Your task to perform on an android device: turn on wifi Image 0: 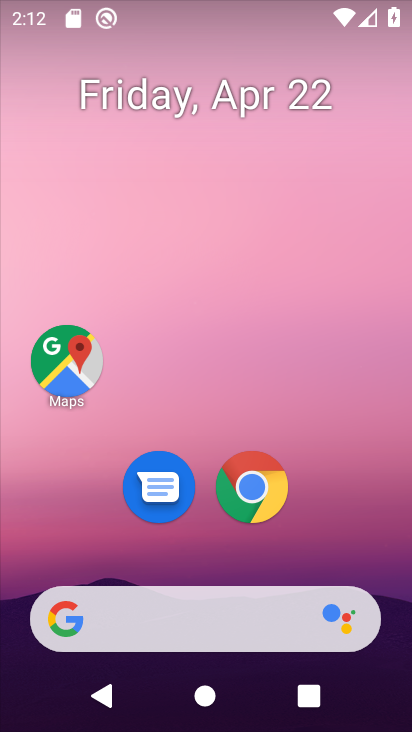
Step 0: drag from (268, 556) to (288, 274)
Your task to perform on an android device: turn on wifi Image 1: 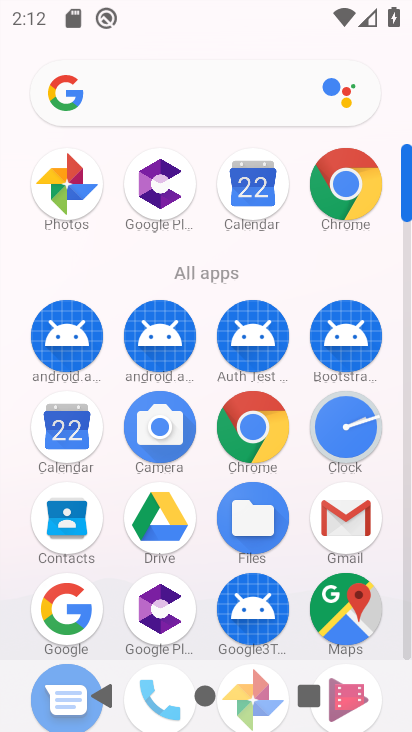
Step 1: drag from (224, 280) to (214, 2)
Your task to perform on an android device: turn on wifi Image 2: 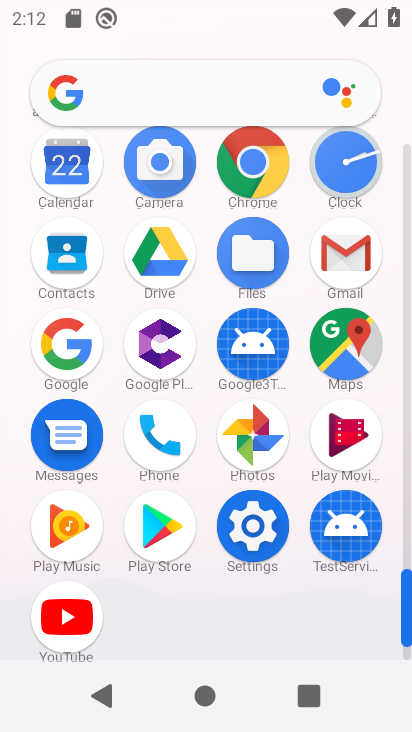
Step 2: click (263, 541)
Your task to perform on an android device: turn on wifi Image 3: 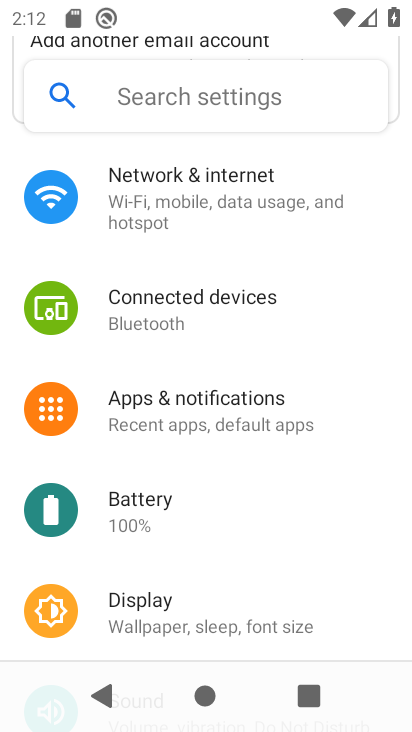
Step 3: click (266, 199)
Your task to perform on an android device: turn on wifi Image 4: 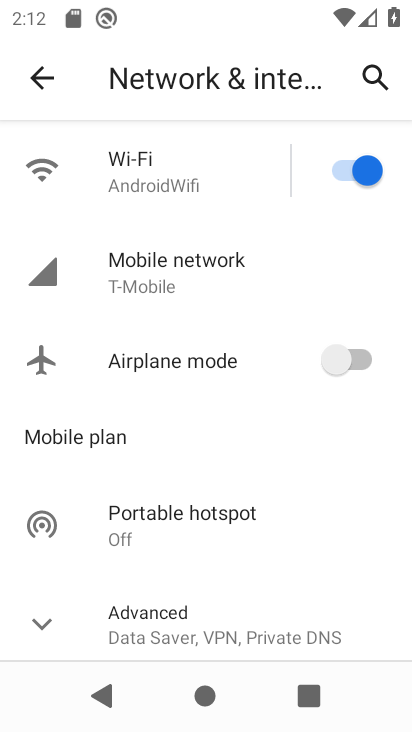
Step 4: task complete